Your task to perform on an android device: turn off airplane mode Image 0: 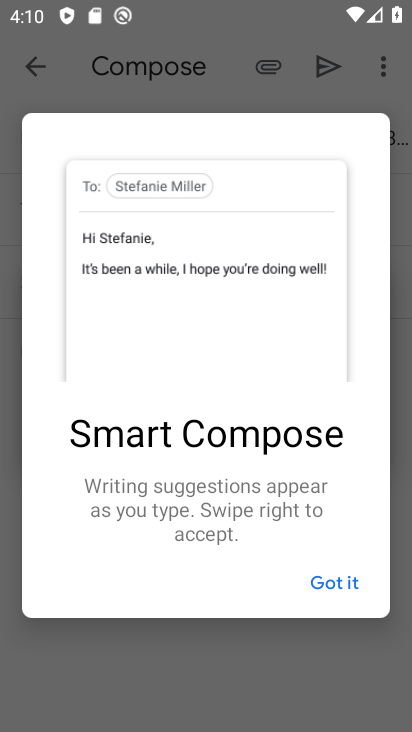
Step 0: press home button
Your task to perform on an android device: turn off airplane mode Image 1: 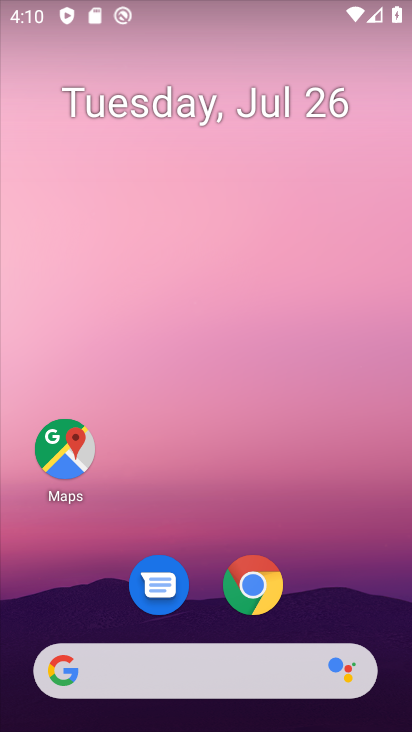
Step 1: drag from (299, 530) to (319, 40)
Your task to perform on an android device: turn off airplane mode Image 2: 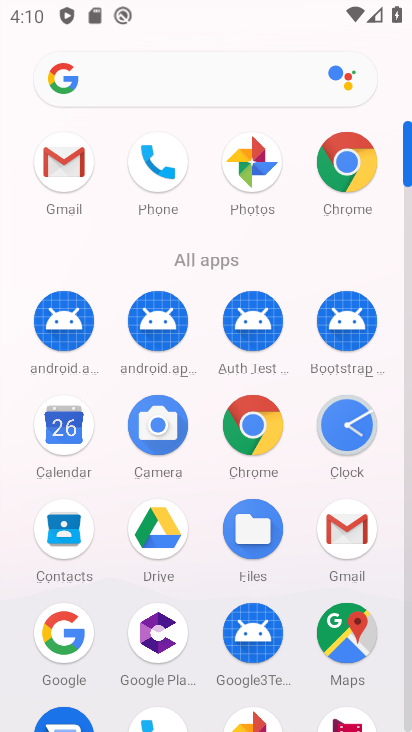
Step 2: drag from (197, 277) to (202, 129)
Your task to perform on an android device: turn off airplane mode Image 3: 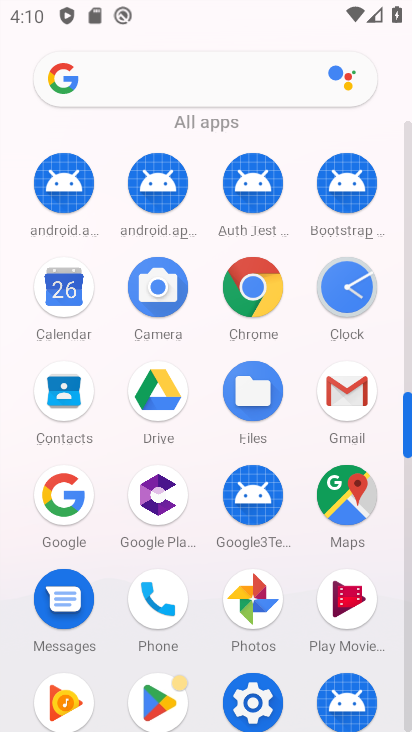
Step 3: click (251, 683)
Your task to perform on an android device: turn off airplane mode Image 4: 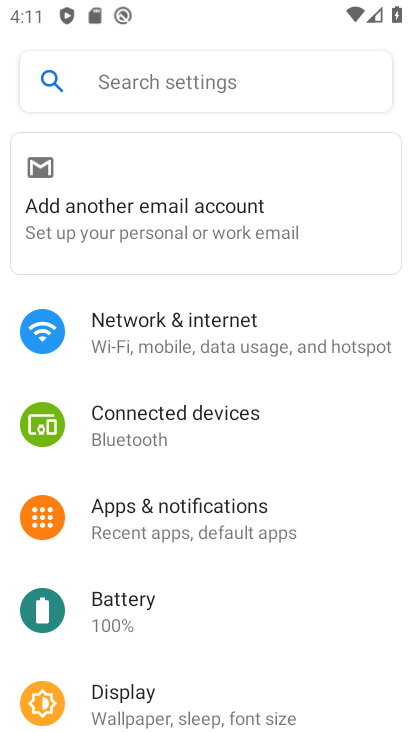
Step 4: click (243, 340)
Your task to perform on an android device: turn off airplane mode Image 5: 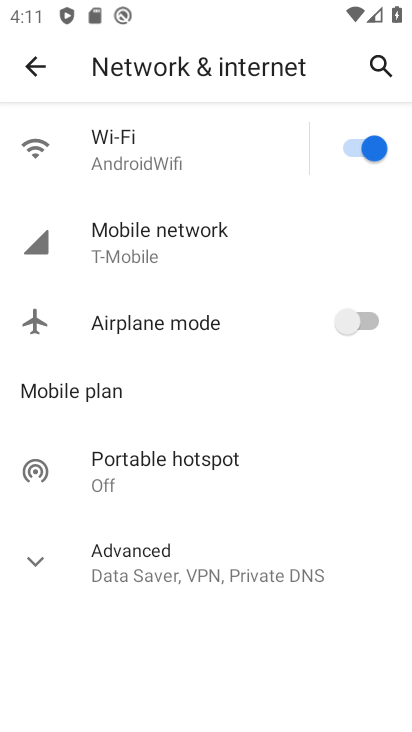
Step 5: task complete